Your task to perform on an android device: What's the weather going to be this weekend? Image 0: 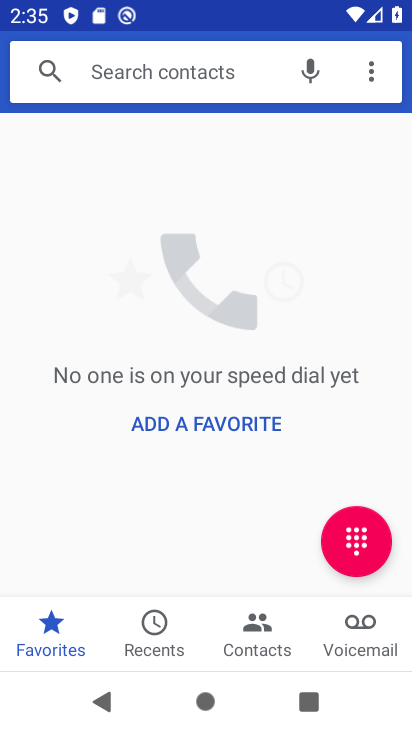
Step 0: press home button
Your task to perform on an android device: What's the weather going to be this weekend? Image 1: 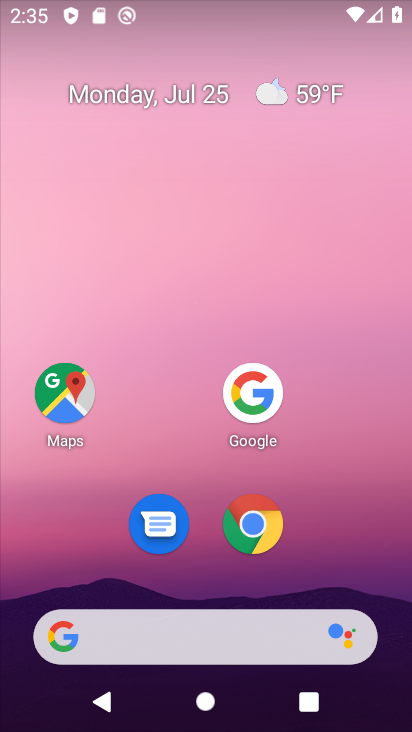
Step 1: click (164, 626)
Your task to perform on an android device: What's the weather going to be this weekend? Image 2: 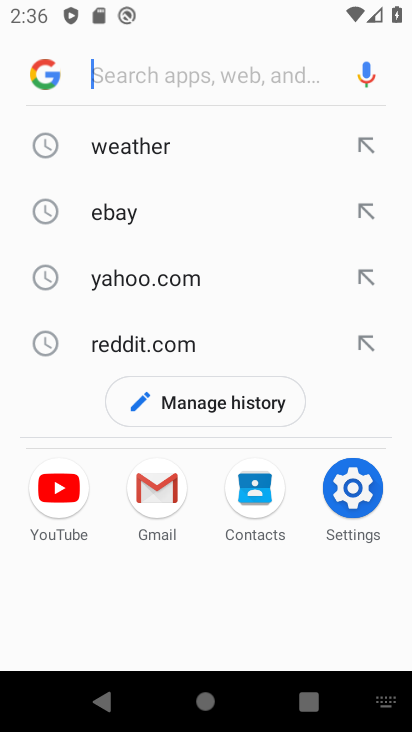
Step 2: click (160, 151)
Your task to perform on an android device: What's the weather going to be this weekend? Image 3: 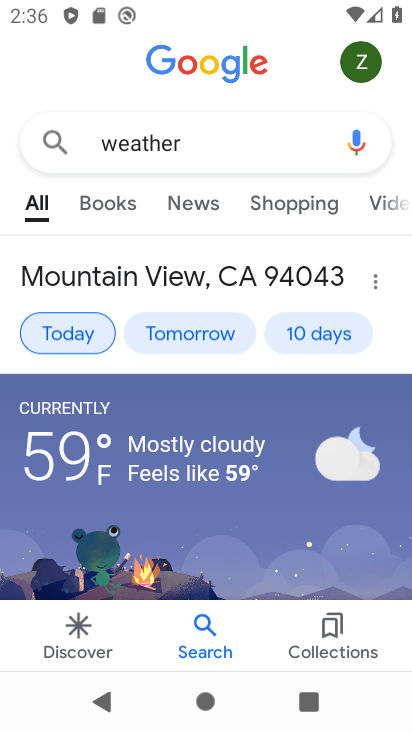
Step 3: click (311, 329)
Your task to perform on an android device: What's the weather going to be this weekend? Image 4: 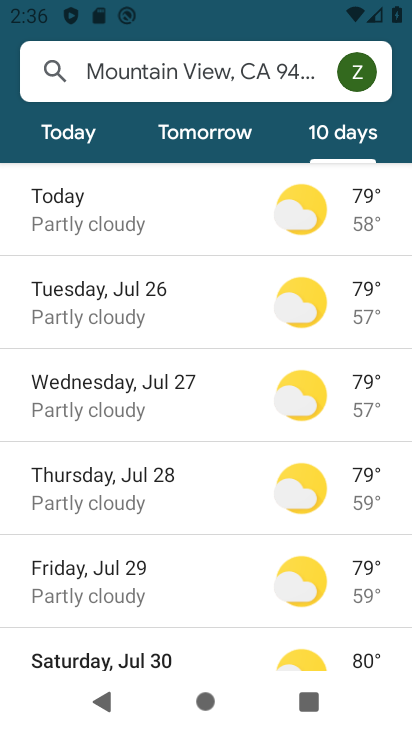
Step 4: task complete